Your task to perform on an android device: Clear the shopping cart on ebay.com. Add logitech g pro to the cart on ebay.com Image 0: 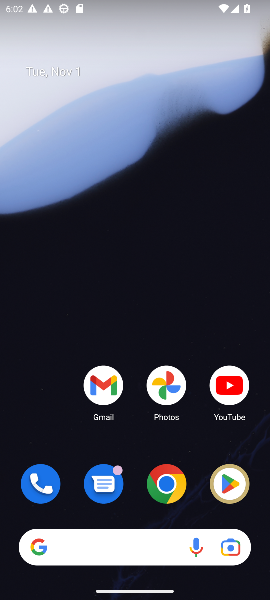
Step 0: click (164, 481)
Your task to perform on an android device: Clear the shopping cart on ebay.com. Add logitech g pro to the cart on ebay.com Image 1: 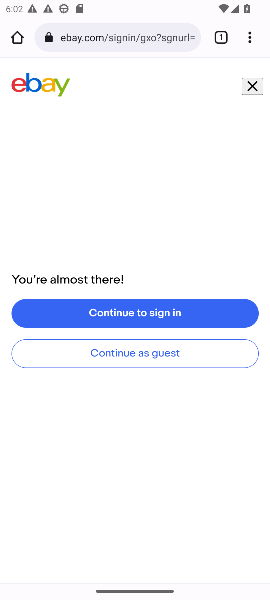
Step 1: click (113, 33)
Your task to perform on an android device: Clear the shopping cart on ebay.com. Add logitech g pro to the cart on ebay.com Image 2: 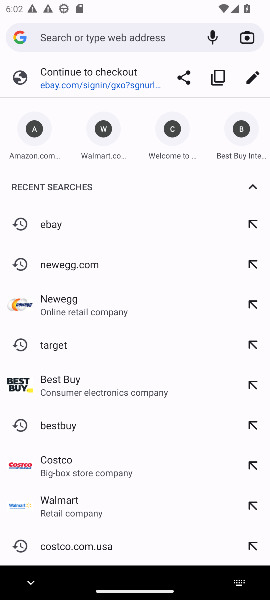
Step 2: type "ebay"
Your task to perform on an android device: Clear the shopping cart on ebay.com. Add logitech g pro to the cart on ebay.com Image 3: 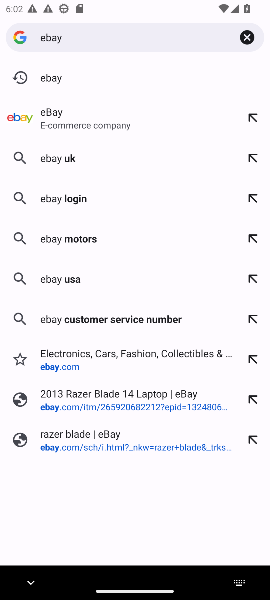
Step 3: click (52, 75)
Your task to perform on an android device: Clear the shopping cart on ebay.com. Add logitech g pro to the cart on ebay.com Image 4: 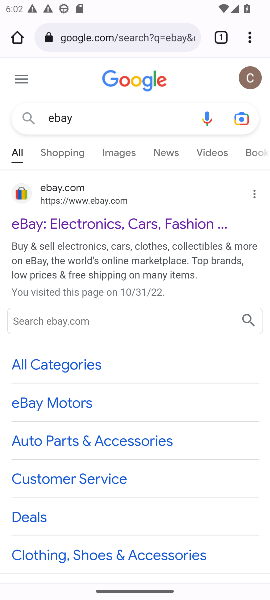
Step 4: click (66, 217)
Your task to perform on an android device: Clear the shopping cart on ebay.com. Add logitech g pro to the cart on ebay.com Image 5: 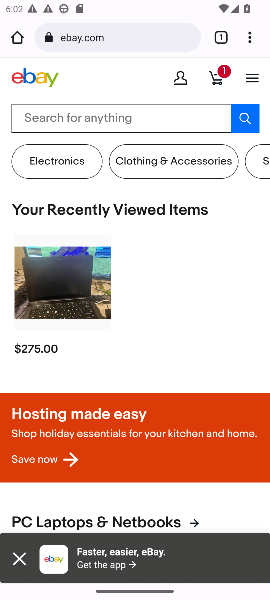
Step 5: click (119, 111)
Your task to perform on an android device: Clear the shopping cart on ebay.com. Add logitech g pro to the cart on ebay.com Image 6: 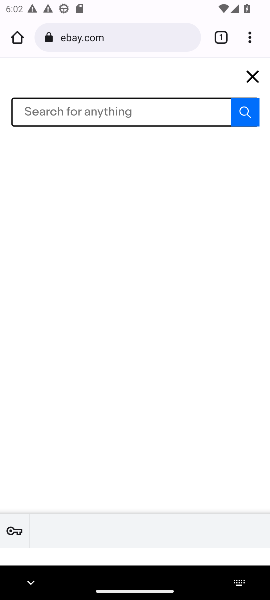
Step 6: click (249, 76)
Your task to perform on an android device: Clear the shopping cart on ebay.com. Add logitech g pro to the cart on ebay.com Image 7: 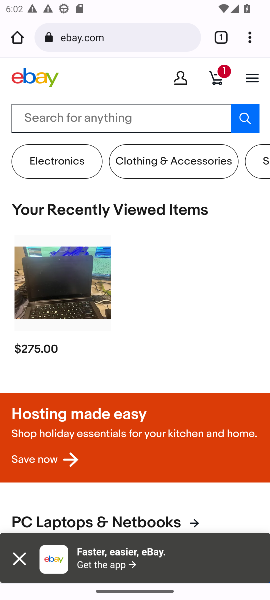
Step 7: click (219, 72)
Your task to perform on an android device: Clear the shopping cart on ebay.com. Add logitech g pro to the cart on ebay.com Image 8: 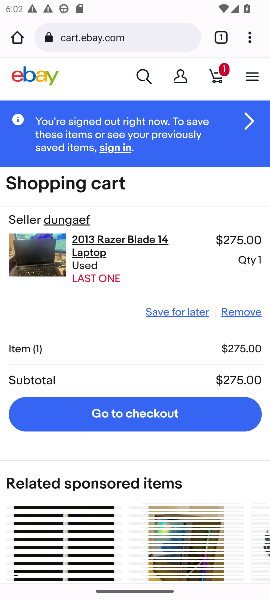
Step 8: click (235, 310)
Your task to perform on an android device: Clear the shopping cart on ebay.com. Add logitech g pro to the cart on ebay.com Image 9: 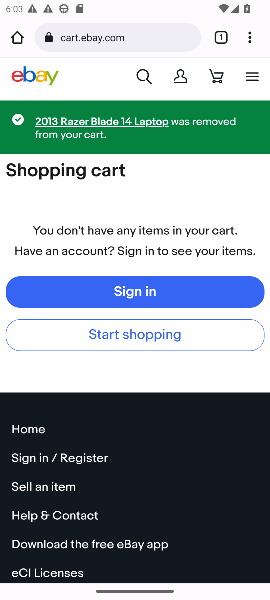
Step 9: click (143, 74)
Your task to perform on an android device: Clear the shopping cart on ebay.com. Add logitech g pro to the cart on ebay.com Image 10: 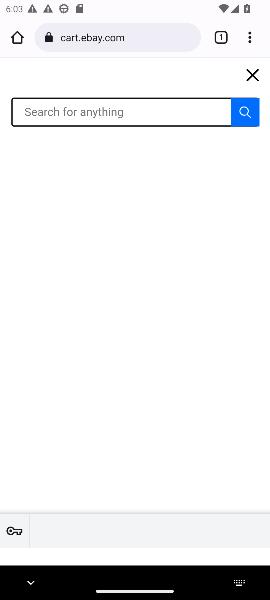
Step 10: type "lo,gitech g pro"
Your task to perform on an android device: Clear the shopping cart on ebay.com. Add logitech g pro to the cart on ebay.com Image 11: 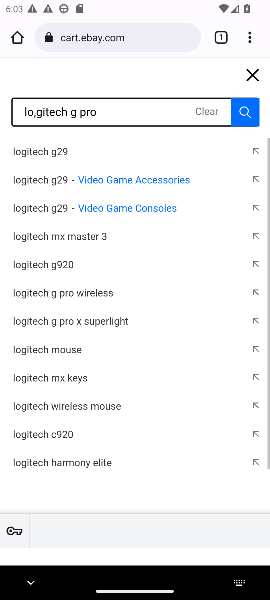
Step 11: click (54, 111)
Your task to perform on an android device: Clear the shopping cart on ebay.com. Add logitech g pro to the cart on ebay.com Image 12: 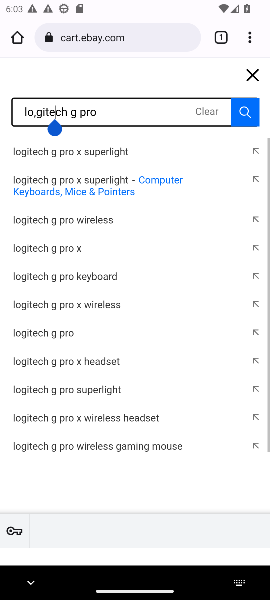
Step 12: click (54, 111)
Your task to perform on an android device: Clear the shopping cart on ebay.com. Add logitech g pro to the cart on ebay.com Image 13: 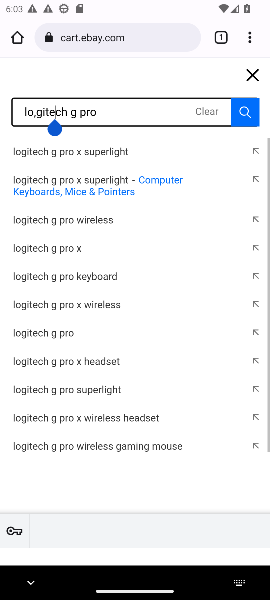
Step 13: click (54, 111)
Your task to perform on an android device: Clear the shopping cart on ebay.com. Add logitech g pro to the cart on ebay.com Image 14: 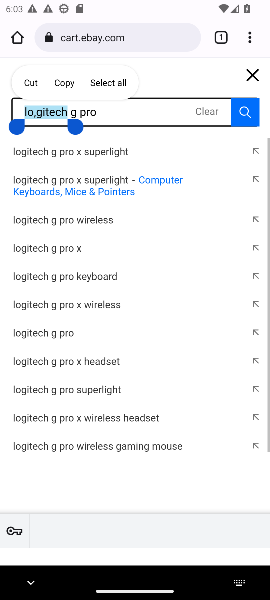
Step 14: type "logitech"
Your task to perform on an android device: Clear the shopping cart on ebay.com. Add logitech g pro to the cart on ebay.com Image 15: 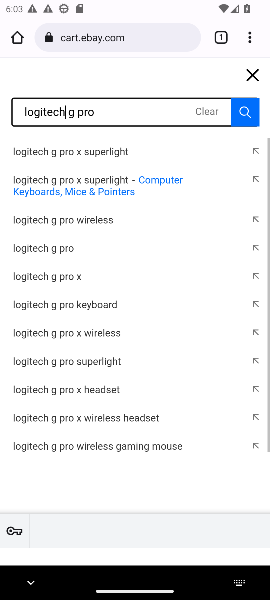
Step 15: click (100, 150)
Your task to perform on an android device: Clear the shopping cart on ebay.com. Add logitech g pro to the cart on ebay.com Image 16: 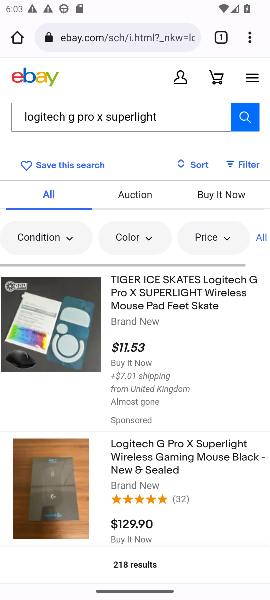
Step 16: click (152, 298)
Your task to perform on an android device: Clear the shopping cart on ebay.com. Add logitech g pro to the cart on ebay.com Image 17: 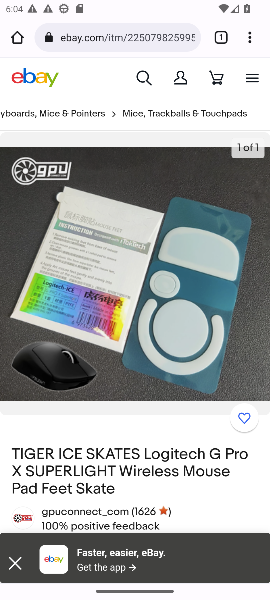
Step 17: drag from (153, 449) to (136, 301)
Your task to perform on an android device: Clear the shopping cart on ebay.com. Add logitech g pro to the cart on ebay.com Image 18: 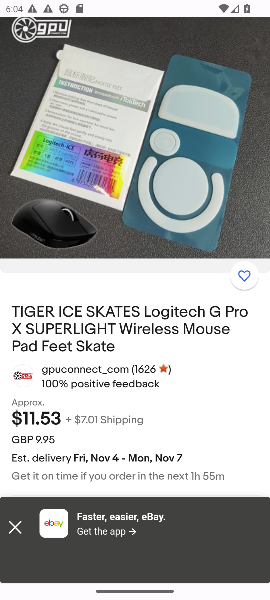
Step 18: drag from (158, 415) to (128, 232)
Your task to perform on an android device: Clear the shopping cart on ebay.com. Add logitech g pro to the cart on ebay.com Image 19: 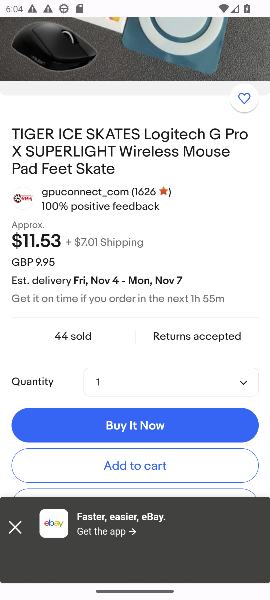
Step 19: click (173, 466)
Your task to perform on an android device: Clear the shopping cart on ebay.com. Add logitech g pro to the cart on ebay.com Image 20: 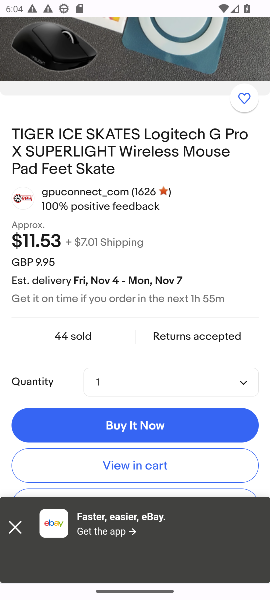
Step 20: click (173, 466)
Your task to perform on an android device: Clear the shopping cart on ebay.com. Add logitech g pro to the cart on ebay.com Image 21: 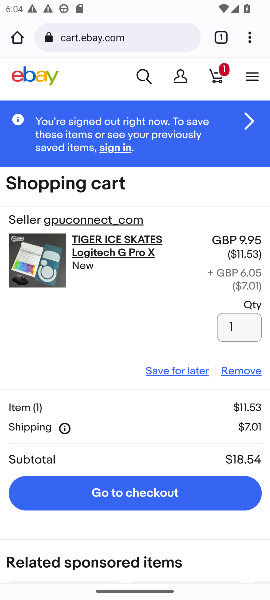
Step 21: click (179, 492)
Your task to perform on an android device: Clear the shopping cart on ebay.com. Add logitech g pro to the cart on ebay.com Image 22: 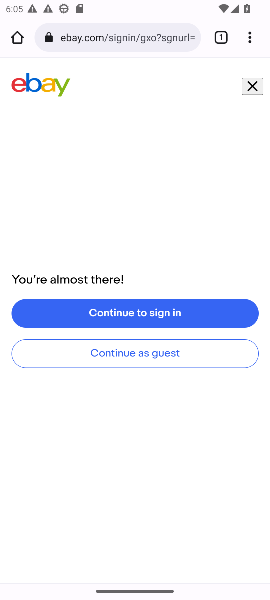
Step 22: task complete